Your task to perform on an android device: Set the phone to "Do not disturb". Image 0: 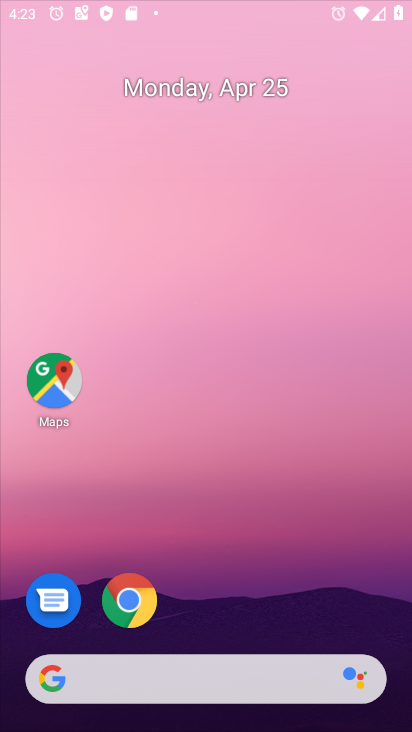
Step 0: click (226, 24)
Your task to perform on an android device: Set the phone to "Do not disturb". Image 1: 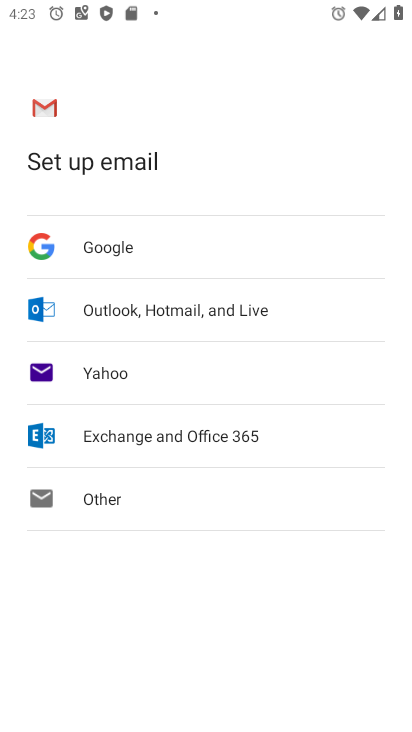
Step 1: press back button
Your task to perform on an android device: Set the phone to "Do not disturb". Image 2: 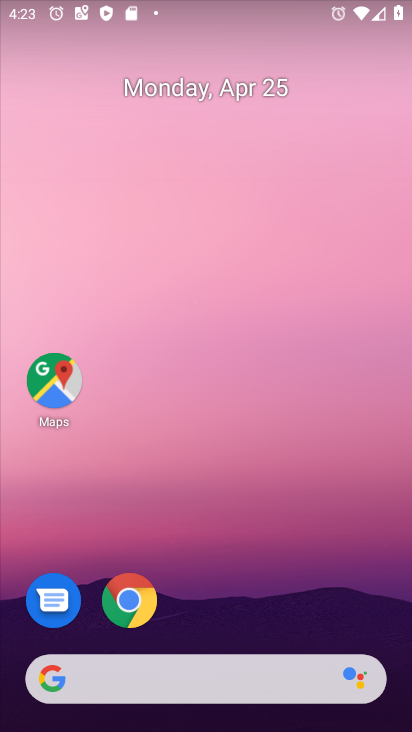
Step 2: drag from (207, 512) to (211, 4)
Your task to perform on an android device: Set the phone to "Do not disturb". Image 3: 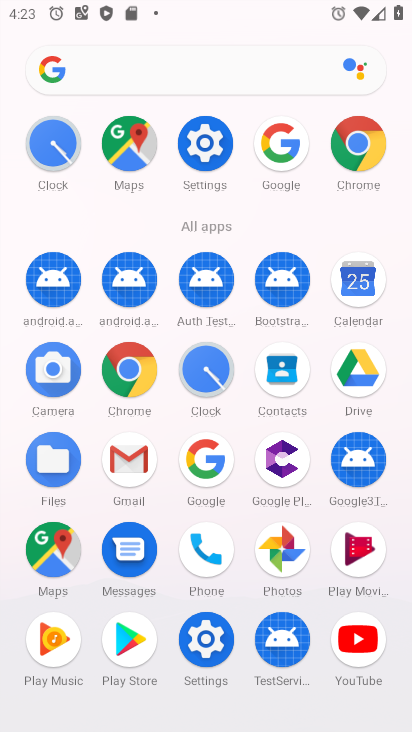
Step 3: drag from (4, 472) to (8, 227)
Your task to perform on an android device: Set the phone to "Do not disturb". Image 4: 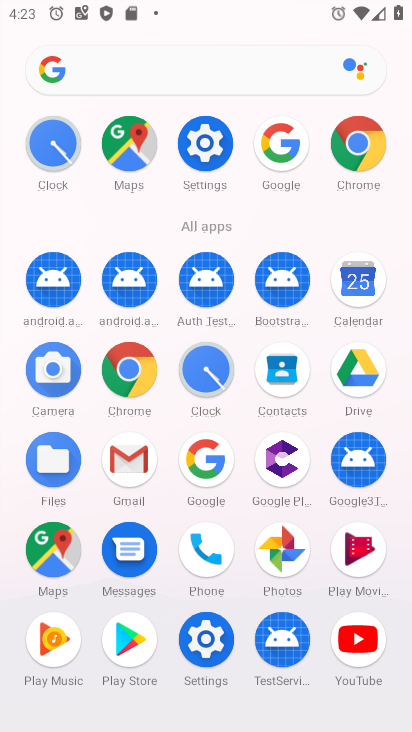
Step 4: click (198, 143)
Your task to perform on an android device: Set the phone to "Do not disturb". Image 5: 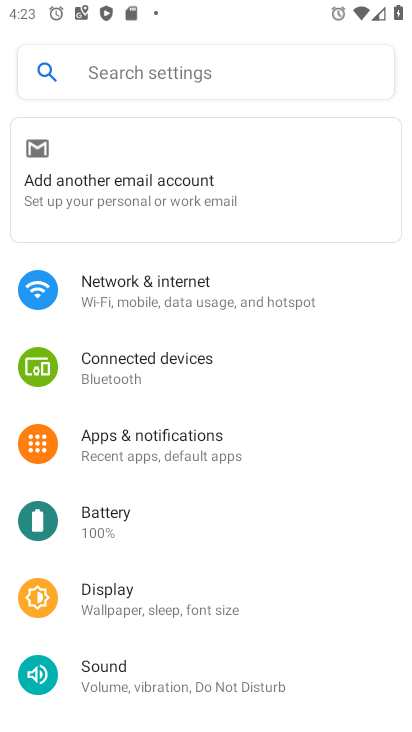
Step 5: drag from (256, 511) to (273, 214)
Your task to perform on an android device: Set the phone to "Do not disturb". Image 6: 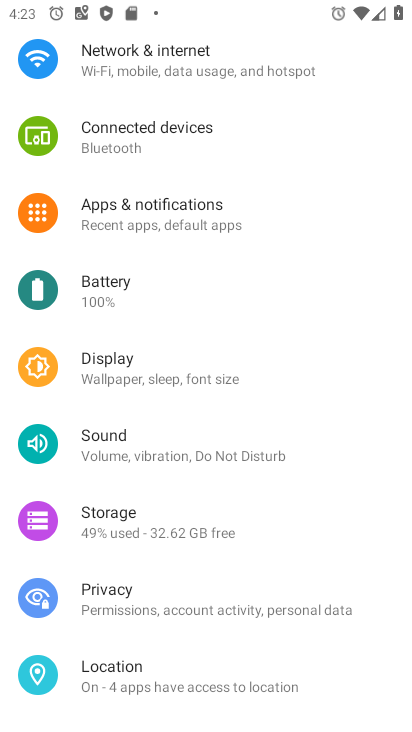
Step 6: drag from (216, 533) to (271, 149)
Your task to perform on an android device: Set the phone to "Do not disturb". Image 7: 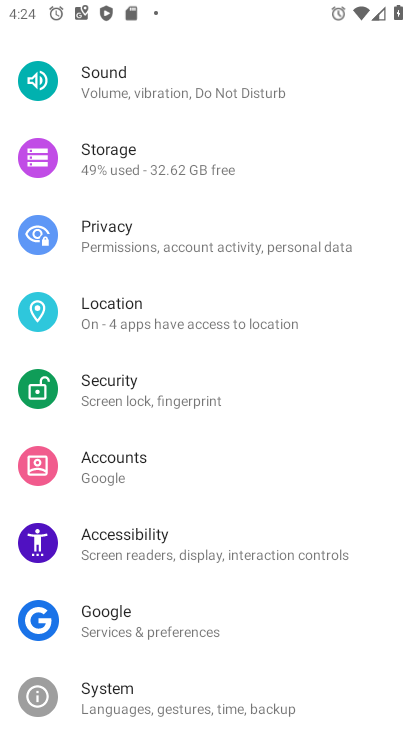
Step 7: drag from (291, 367) to (314, 136)
Your task to perform on an android device: Set the phone to "Do not disturb". Image 8: 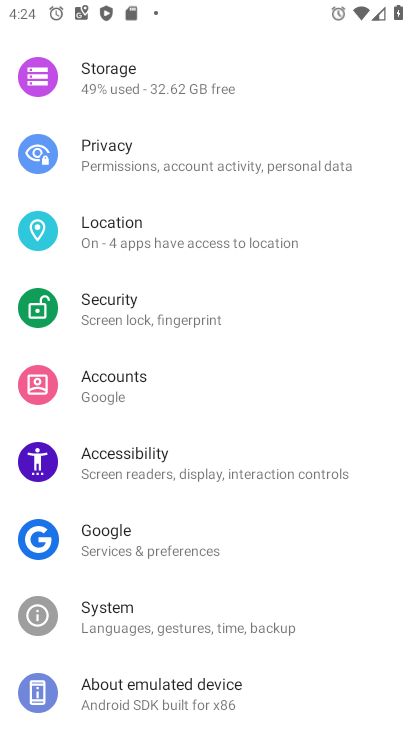
Step 8: drag from (264, 479) to (278, 76)
Your task to perform on an android device: Set the phone to "Do not disturb". Image 9: 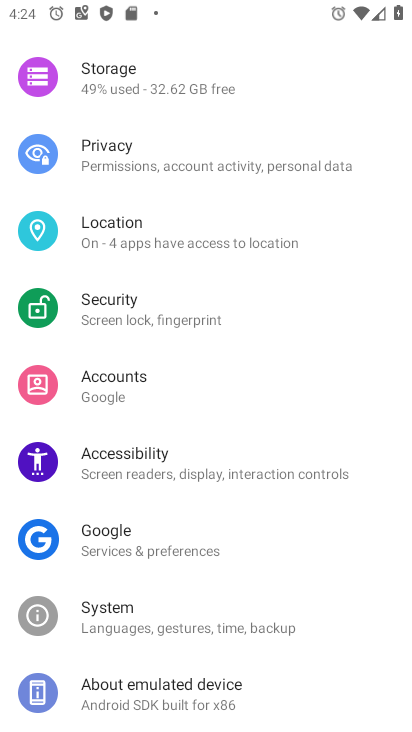
Step 9: drag from (273, 111) to (268, 493)
Your task to perform on an android device: Set the phone to "Do not disturb". Image 10: 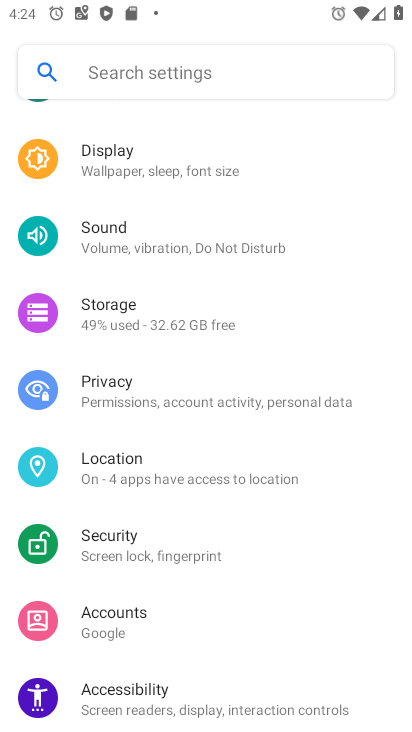
Step 10: click (198, 253)
Your task to perform on an android device: Set the phone to "Do not disturb". Image 11: 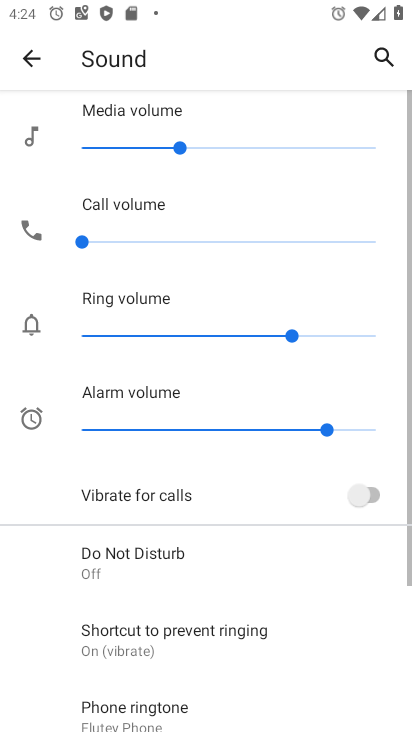
Step 11: drag from (212, 582) to (278, 179)
Your task to perform on an android device: Set the phone to "Do not disturb". Image 12: 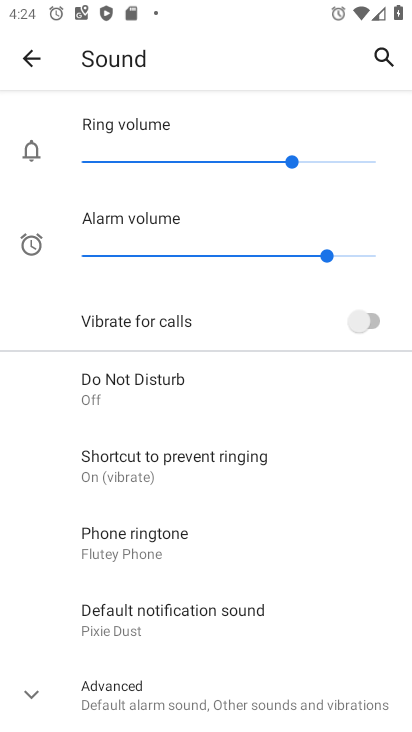
Step 12: click (113, 683)
Your task to perform on an android device: Set the phone to "Do not disturb". Image 13: 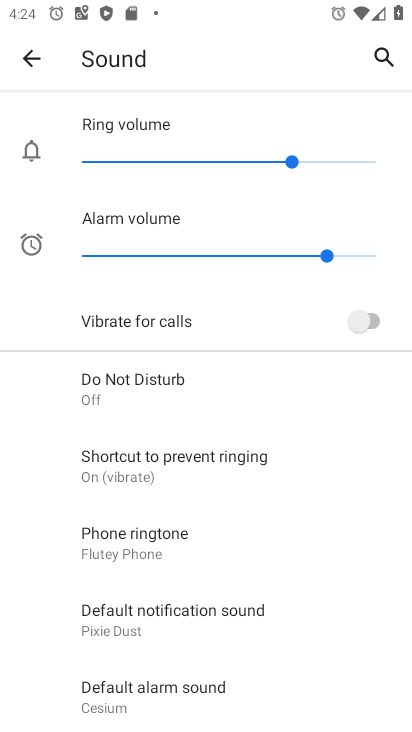
Step 13: drag from (239, 633) to (266, 198)
Your task to perform on an android device: Set the phone to "Do not disturb". Image 14: 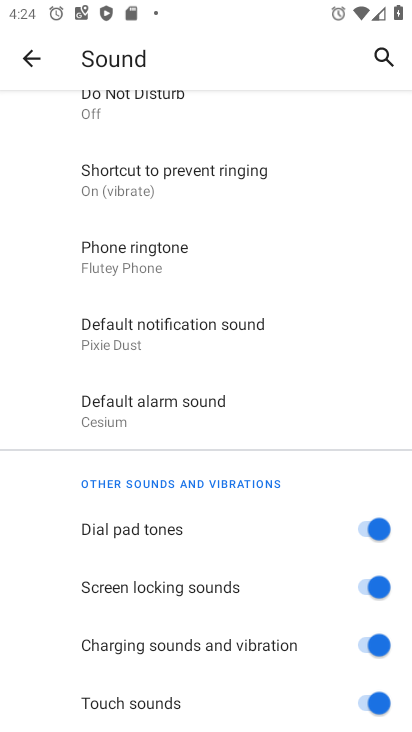
Step 14: drag from (217, 193) to (193, 431)
Your task to perform on an android device: Set the phone to "Do not disturb". Image 15: 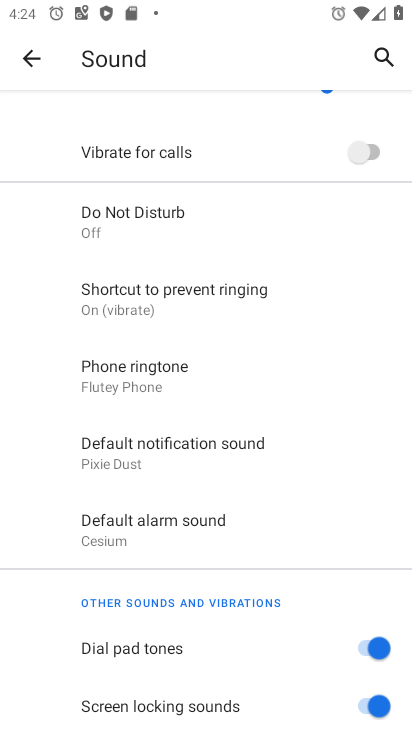
Step 15: click (178, 217)
Your task to perform on an android device: Set the phone to "Do not disturb". Image 16: 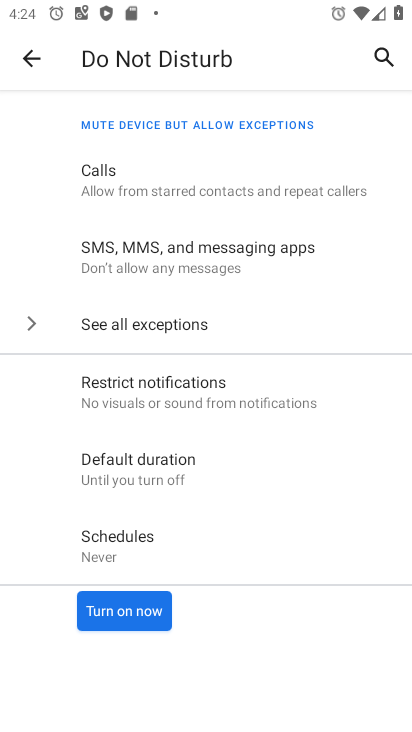
Step 16: click (141, 615)
Your task to perform on an android device: Set the phone to "Do not disturb". Image 17: 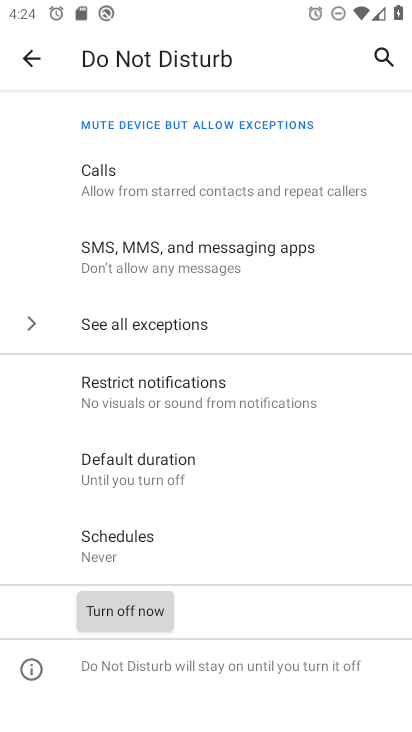
Step 17: task complete